Your task to perform on an android device: open a new tab in the chrome app Image 0: 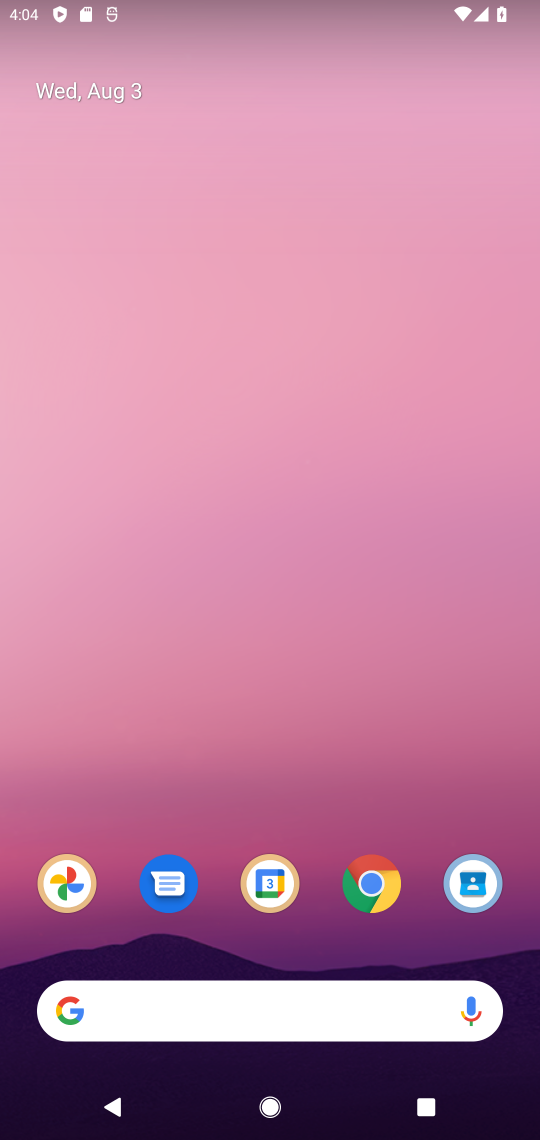
Step 0: click (353, 890)
Your task to perform on an android device: open a new tab in the chrome app Image 1: 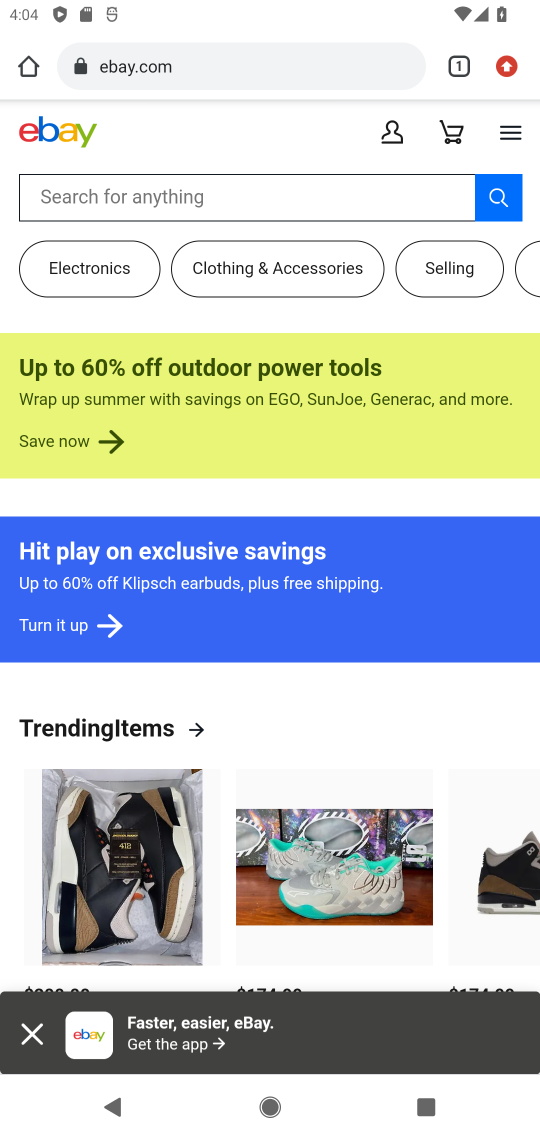
Step 1: click (508, 74)
Your task to perform on an android device: open a new tab in the chrome app Image 2: 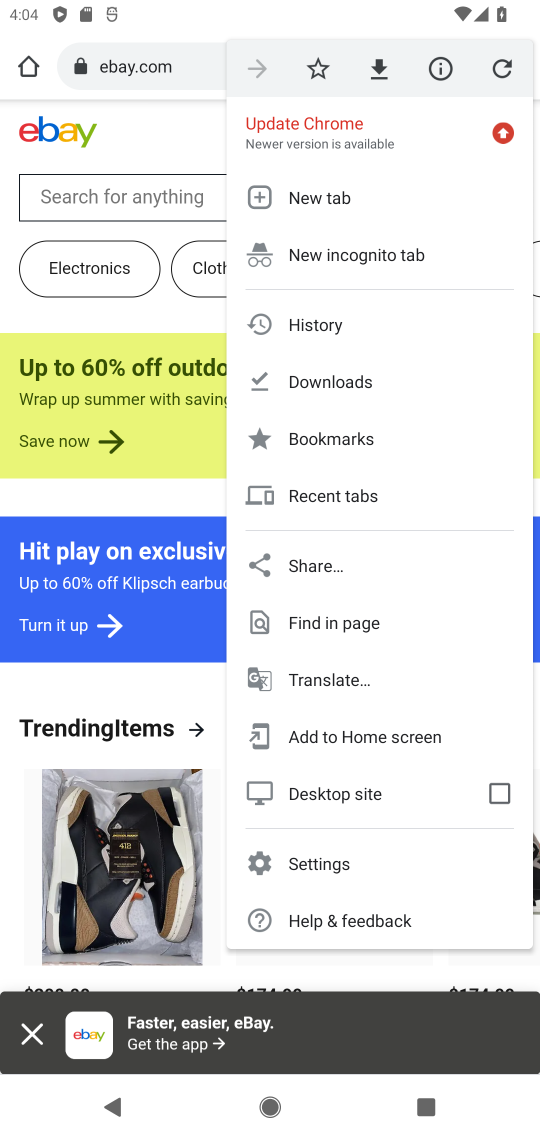
Step 2: click (319, 200)
Your task to perform on an android device: open a new tab in the chrome app Image 3: 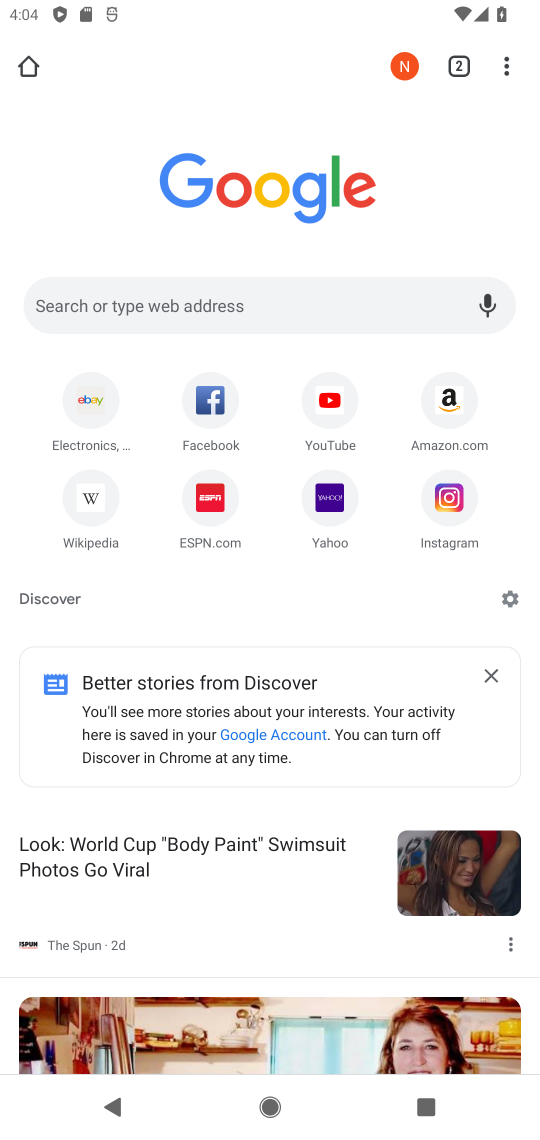
Step 3: drag from (237, 771) to (270, 429)
Your task to perform on an android device: open a new tab in the chrome app Image 4: 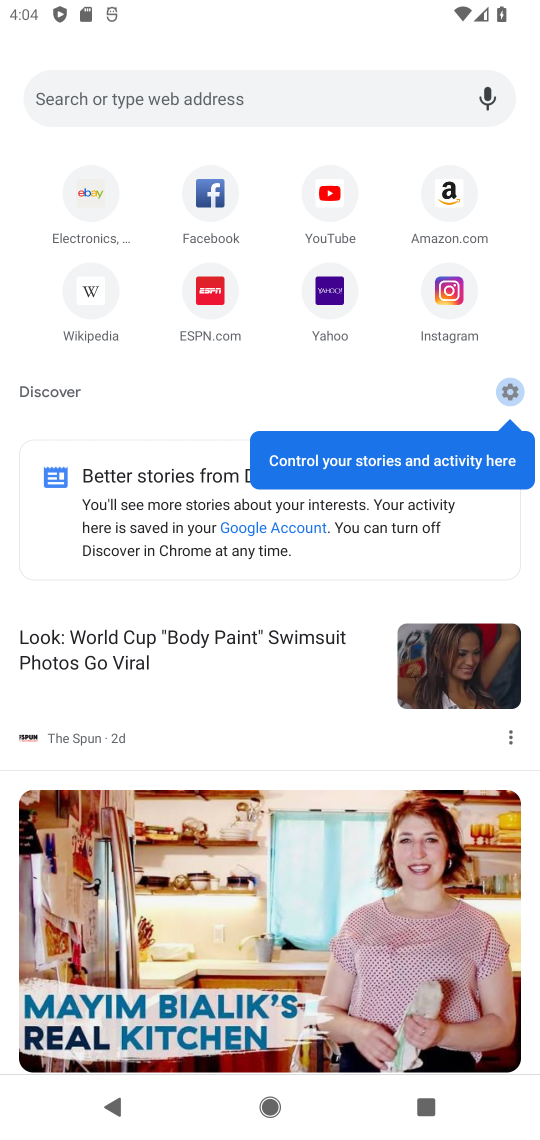
Step 4: drag from (467, 148) to (461, 834)
Your task to perform on an android device: open a new tab in the chrome app Image 5: 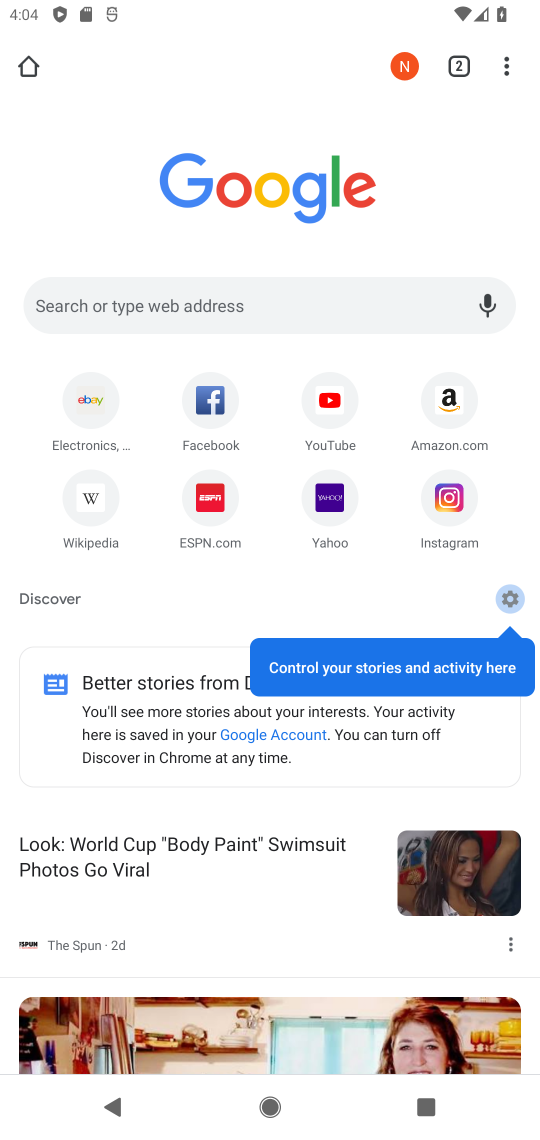
Step 5: click (511, 70)
Your task to perform on an android device: open a new tab in the chrome app Image 6: 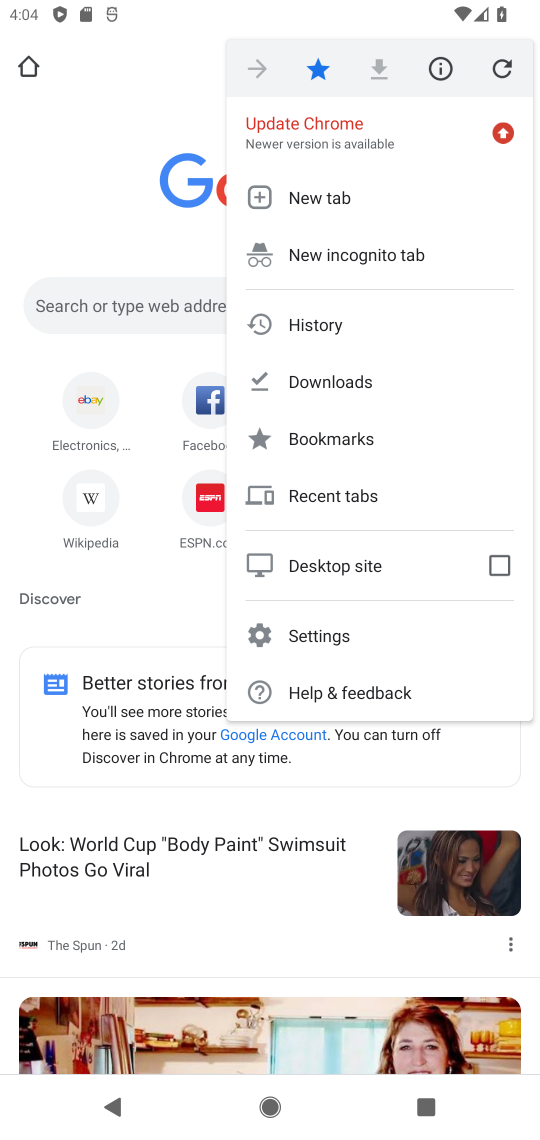
Step 6: click (379, 208)
Your task to perform on an android device: open a new tab in the chrome app Image 7: 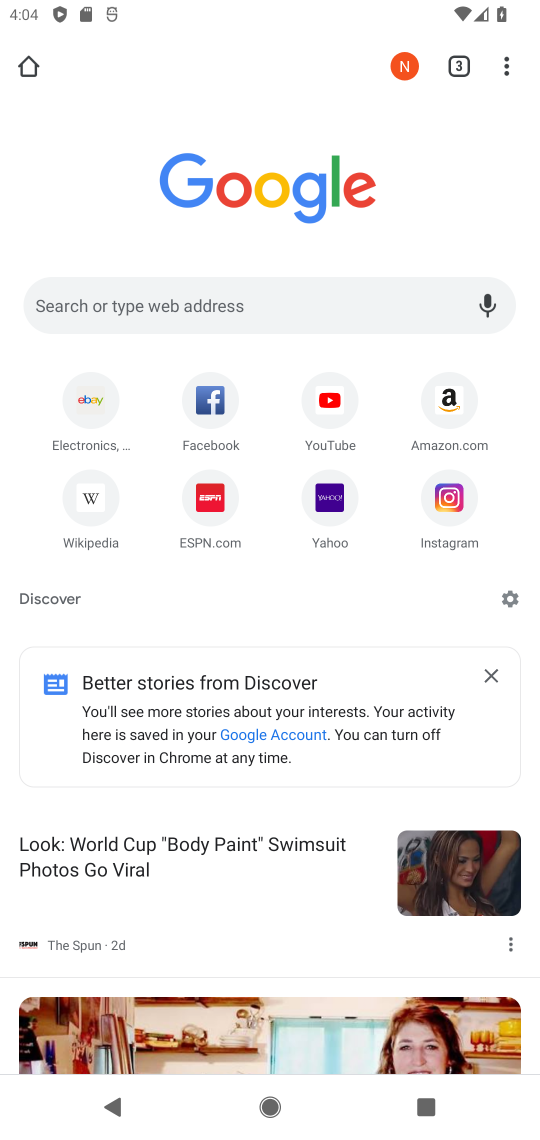
Step 7: task complete